Your task to perform on an android device: search for starred emails in the gmail app Image 0: 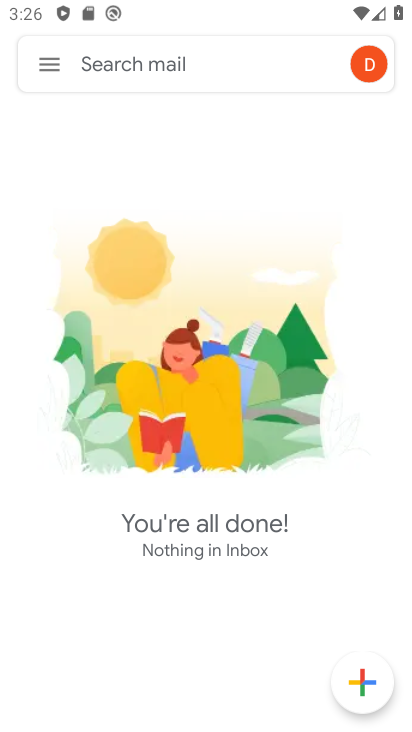
Step 0: click (49, 48)
Your task to perform on an android device: search for starred emails in the gmail app Image 1: 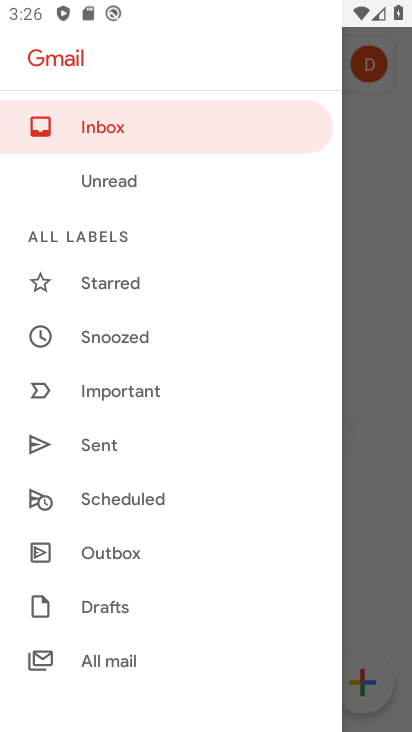
Step 1: click (119, 299)
Your task to perform on an android device: search for starred emails in the gmail app Image 2: 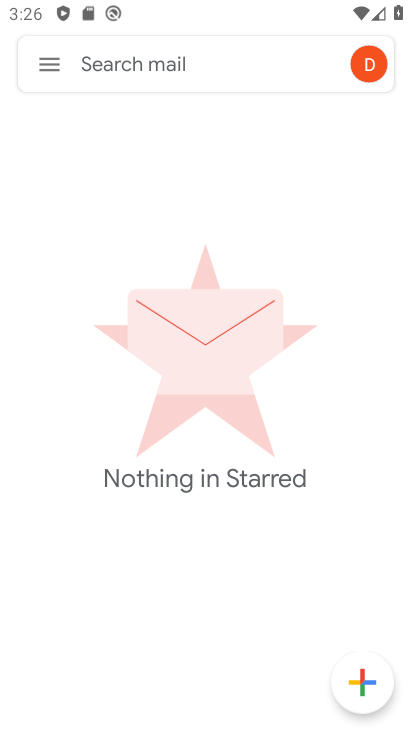
Step 2: task complete